Your task to perform on an android device: move an email to a new category in the gmail app Image 0: 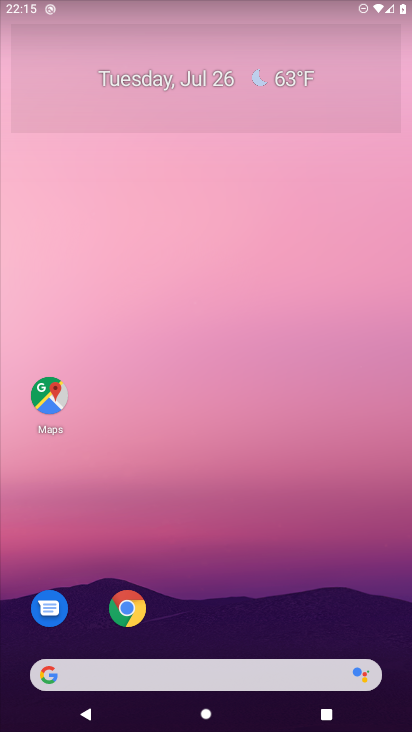
Step 0: drag from (29, 701) to (145, 162)
Your task to perform on an android device: move an email to a new category in the gmail app Image 1: 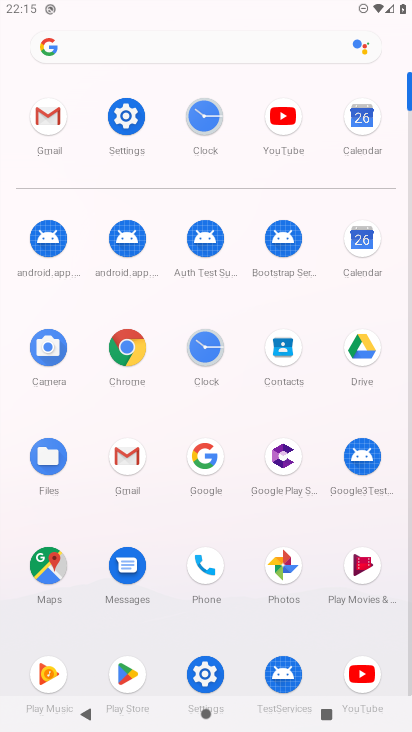
Step 1: click (120, 456)
Your task to perform on an android device: move an email to a new category in the gmail app Image 2: 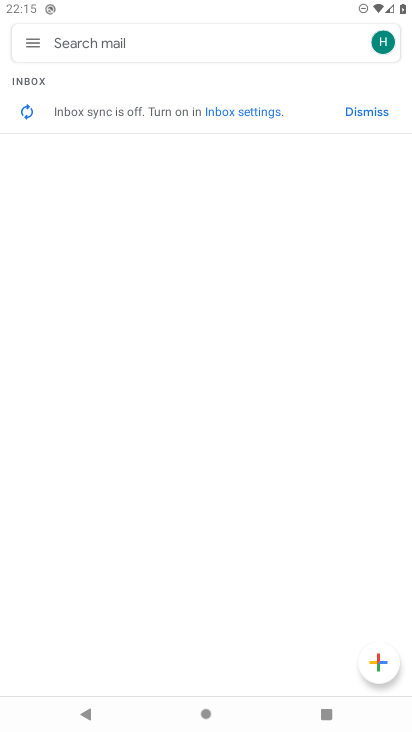
Step 2: click (26, 42)
Your task to perform on an android device: move an email to a new category in the gmail app Image 3: 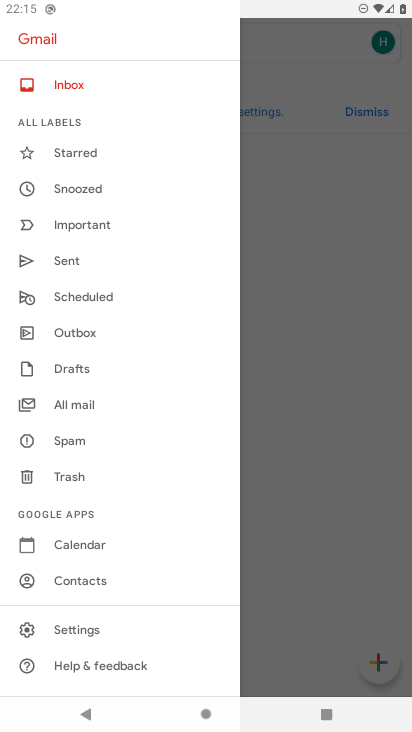
Step 3: click (83, 76)
Your task to perform on an android device: move an email to a new category in the gmail app Image 4: 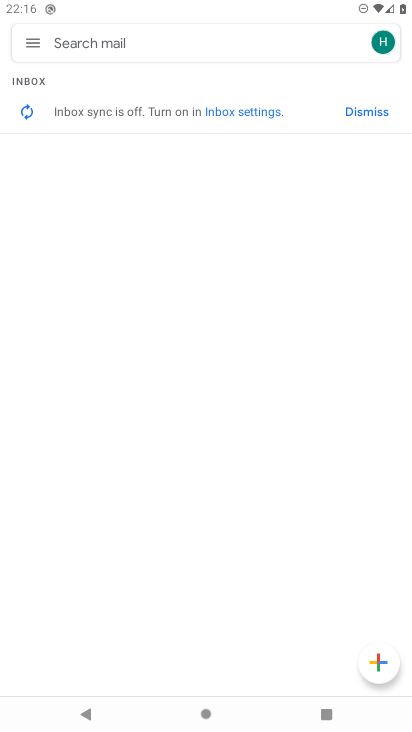
Step 4: click (42, 42)
Your task to perform on an android device: move an email to a new category in the gmail app Image 5: 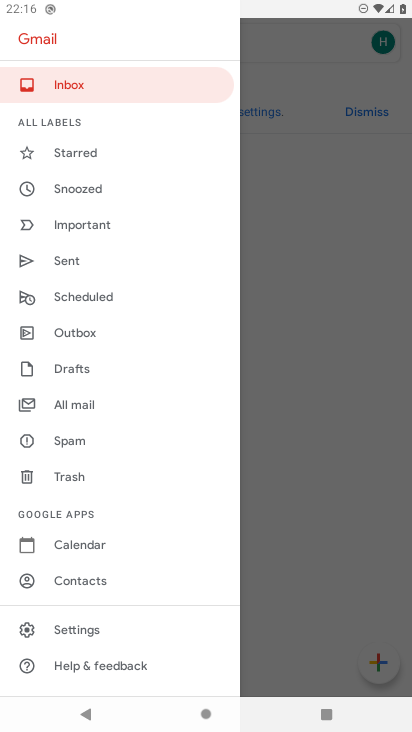
Step 5: click (63, 86)
Your task to perform on an android device: move an email to a new category in the gmail app Image 6: 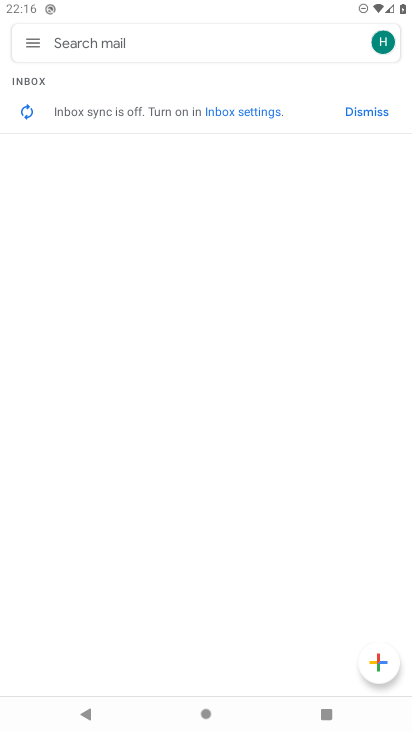
Step 6: task complete